Your task to perform on an android device: Go to accessibility settings Image 0: 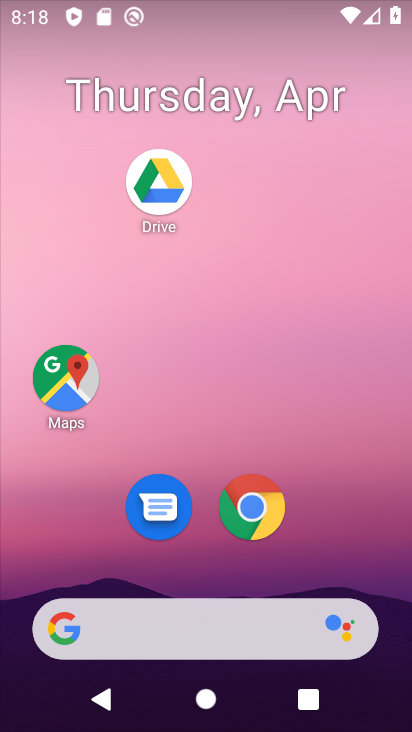
Step 0: drag from (371, 545) to (357, 130)
Your task to perform on an android device: Go to accessibility settings Image 1: 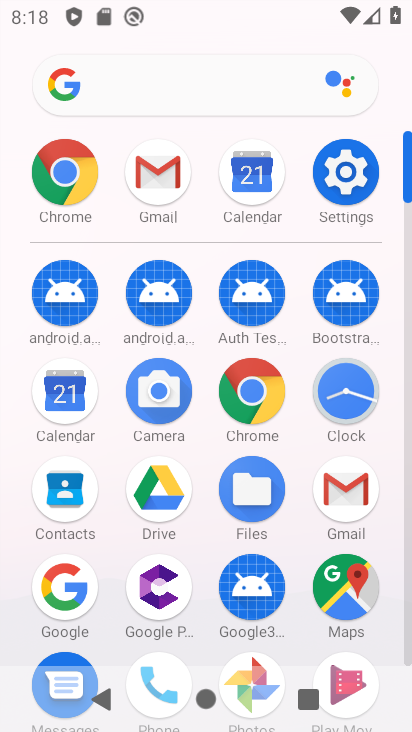
Step 1: click (353, 191)
Your task to perform on an android device: Go to accessibility settings Image 2: 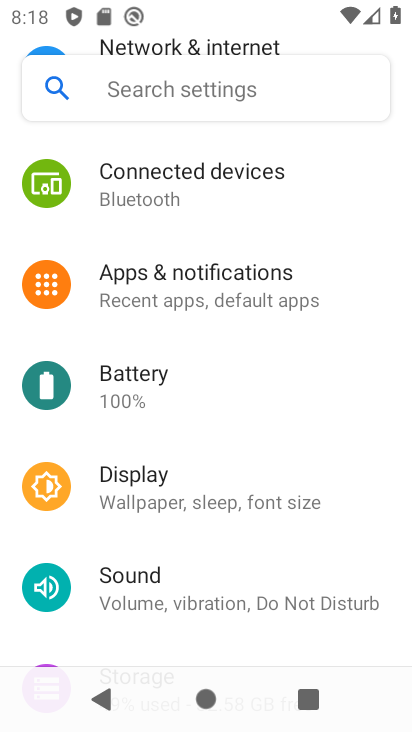
Step 2: drag from (368, 278) to (364, 446)
Your task to perform on an android device: Go to accessibility settings Image 3: 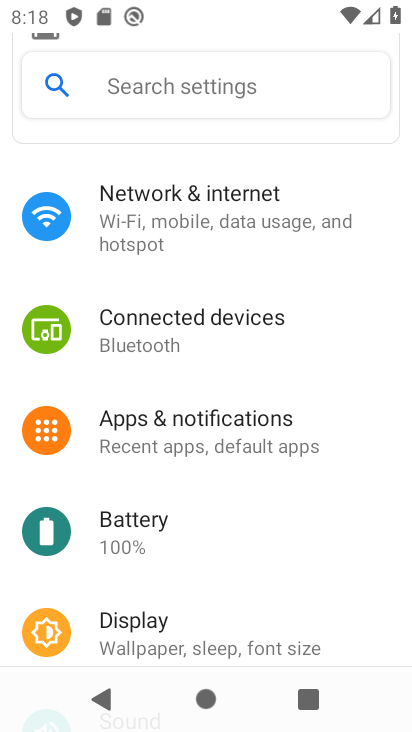
Step 3: drag from (363, 280) to (360, 422)
Your task to perform on an android device: Go to accessibility settings Image 4: 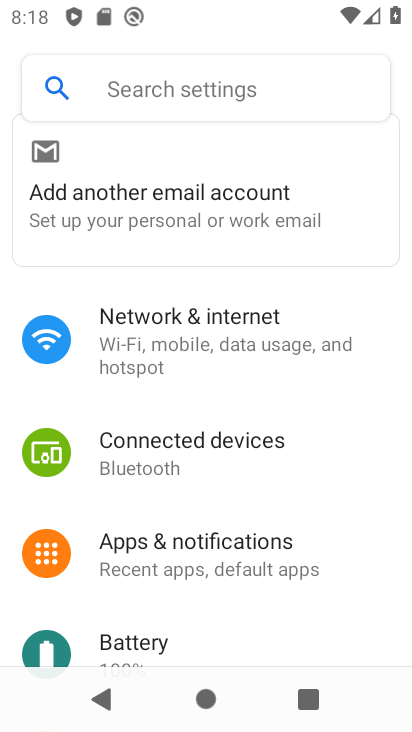
Step 4: drag from (370, 208) to (336, 473)
Your task to perform on an android device: Go to accessibility settings Image 5: 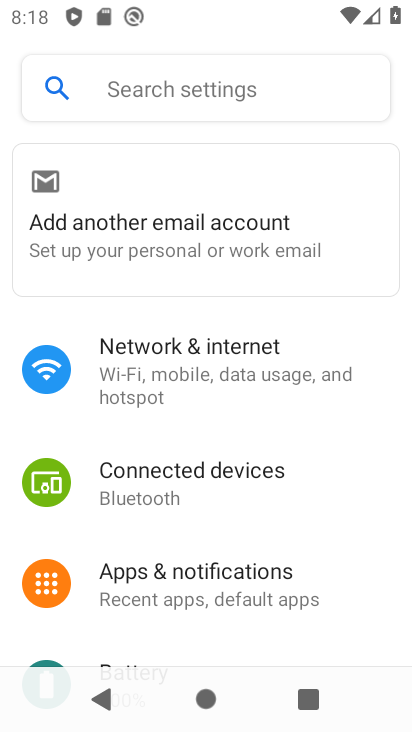
Step 5: drag from (347, 544) to (351, 390)
Your task to perform on an android device: Go to accessibility settings Image 6: 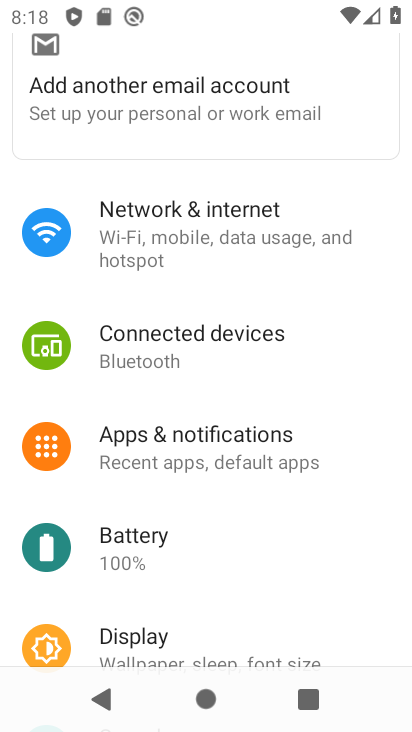
Step 6: drag from (336, 573) to (363, 381)
Your task to perform on an android device: Go to accessibility settings Image 7: 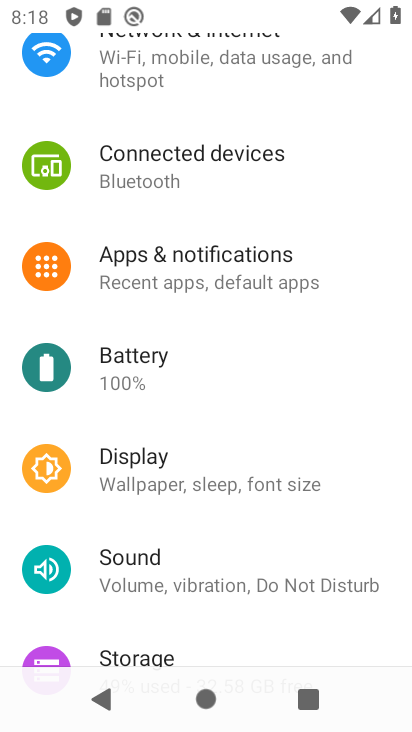
Step 7: drag from (342, 611) to (354, 414)
Your task to perform on an android device: Go to accessibility settings Image 8: 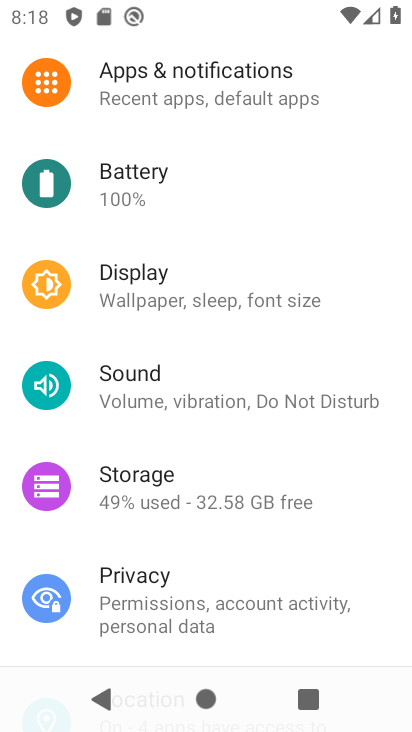
Step 8: drag from (345, 541) to (351, 395)
Your task to perform on an android device: Go to accessibility settings Image 9: 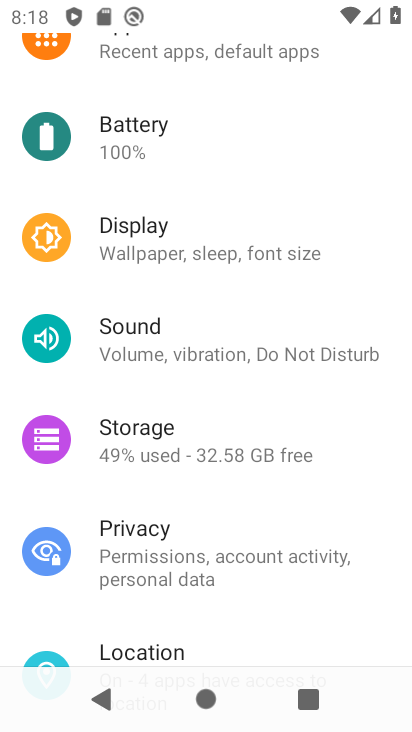
Step 9: drag from (371, 621) to (371, 470)
Your task to perform on an android device: Go to accessibility settings Image 10: 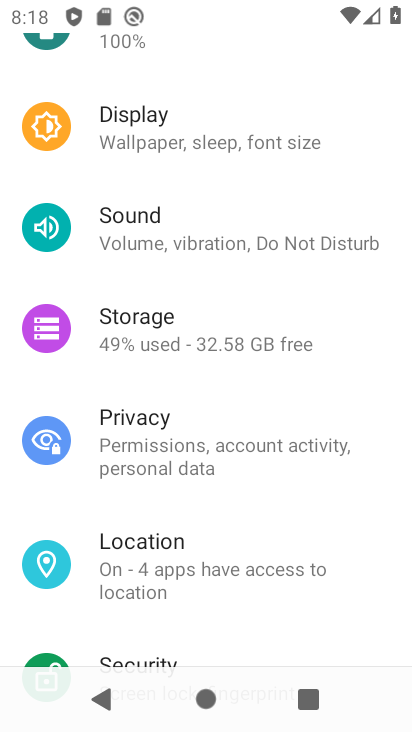
Step 10: drag from (363, 600) to (371, 414)
Your task to perform on an android device: Go to accessibility settings Image 11: 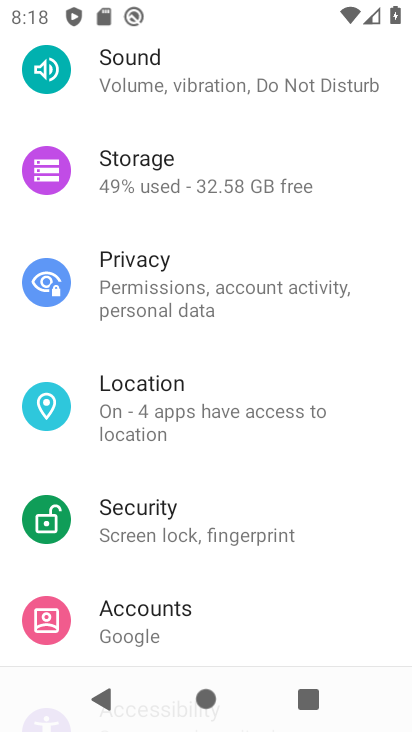
Step 11: drag from (349, 601) to (355, 401)
Your task to perform on an android device: Go to accessibility settings Image 12: 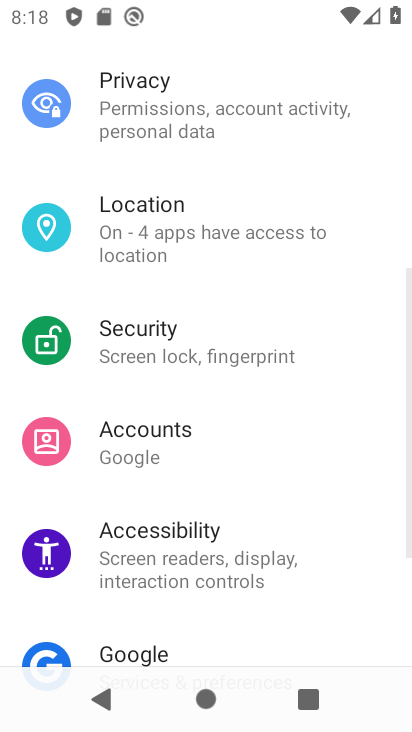
Step 12: drag from (352, 341) to (346, 417)
Your task to perform on an android device: Go to accessibility settings Image 13: 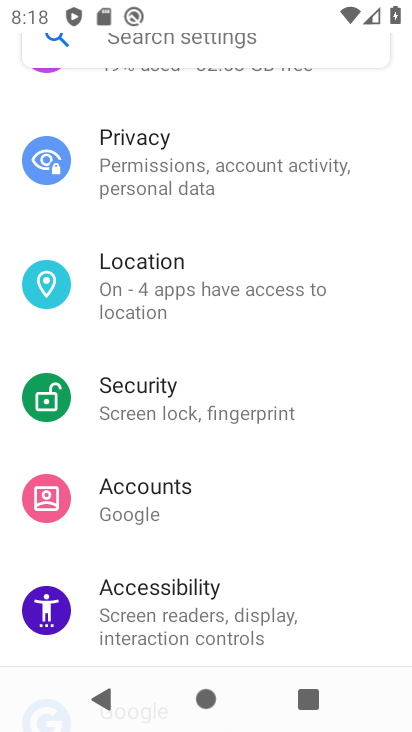
Step 13: click (196, 609)
Your task to perform on an android device: Go to accessibility settings Image 14: 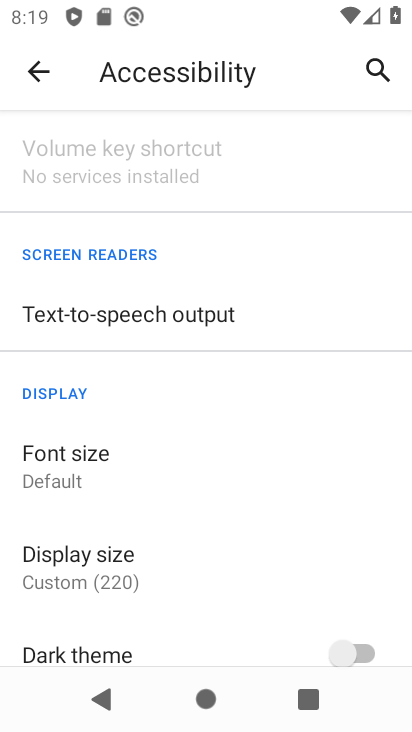
Step 14: task complete